Your task to perform on an android device: Check the settings for the Google Play Books app Image 0: 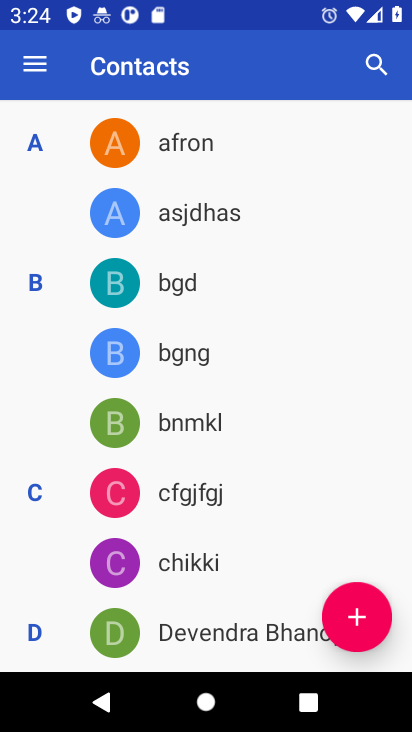
Step 0: press home button
Your task to perform on an android device: Check the settings for the Google Play Books app Image 1: 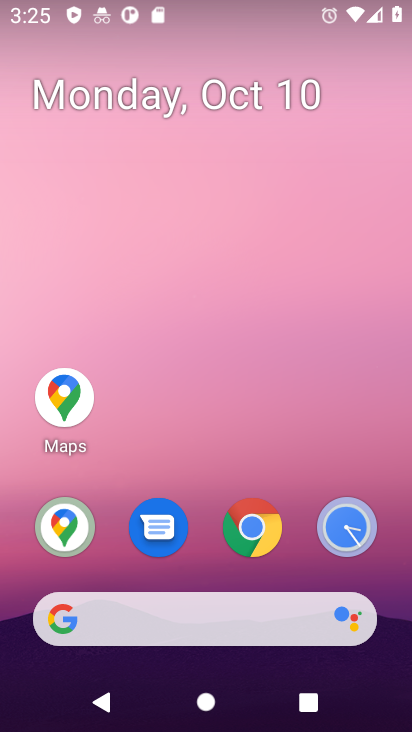
Step 1: drag from (155, 641) to (236, 79)
Your task to perform on an android device: Check the settings for the Google Play Books app Image 2: 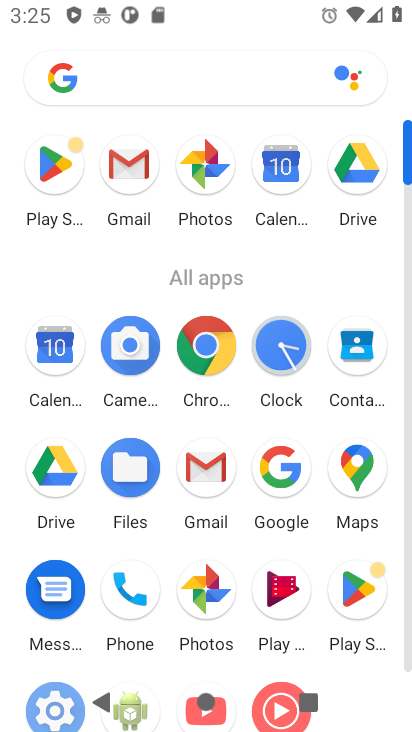
Step 2: click (361, 597)
Your task to perform on an android device: Check the settings for the Google Play Books app Image 3: 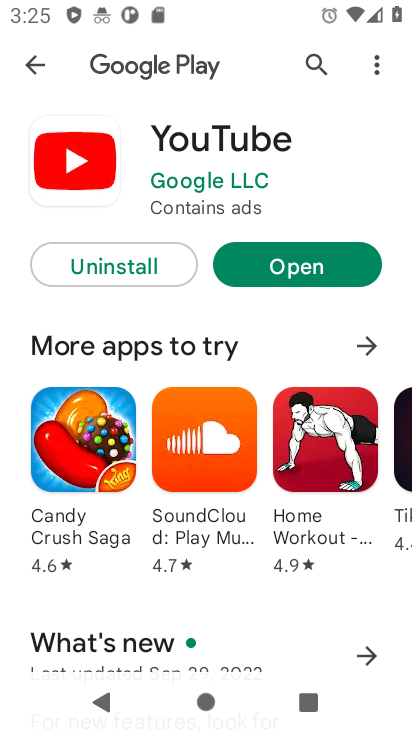
Step 3: press back button
Your task to perform on an android device: Check the settings for the Google Play Books app Image 4: 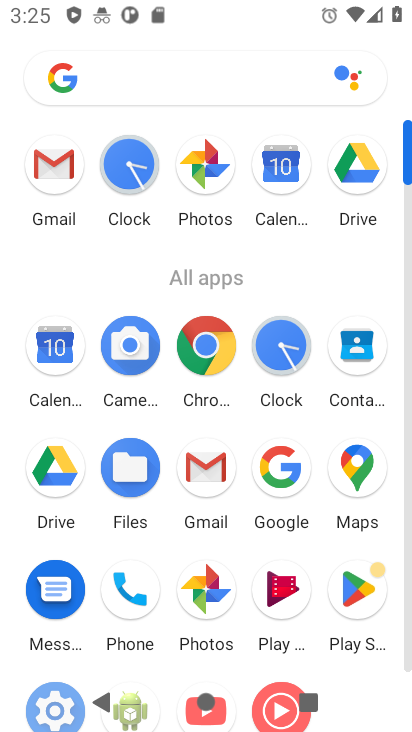
Step 4: click (355, 592)
Your task to perform on an android device: Check the settings for the Google Play Books app Image 5: 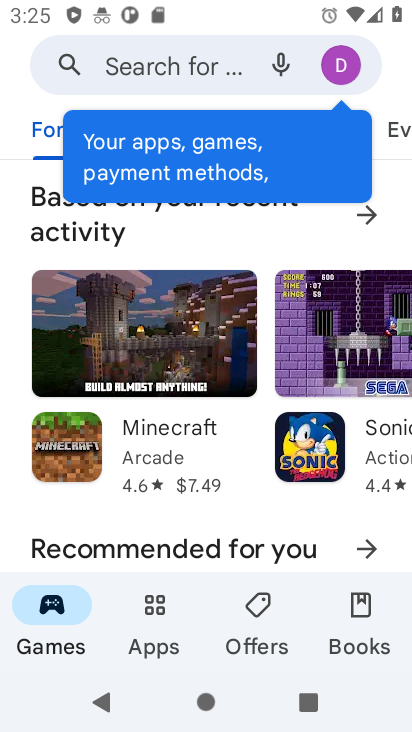
Step 5: click (368, 602)
Your task to perform on an android device: Check the settings for the Google Play Books app Image 6: 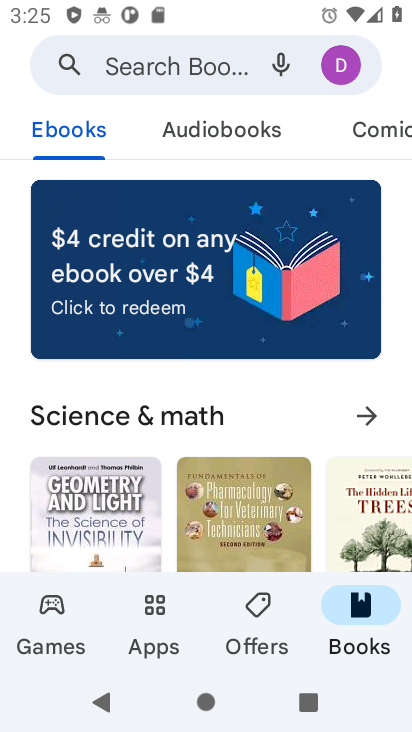
Step 6: task complete